Your task to perform on an android device: Go to battery settings Image 0: 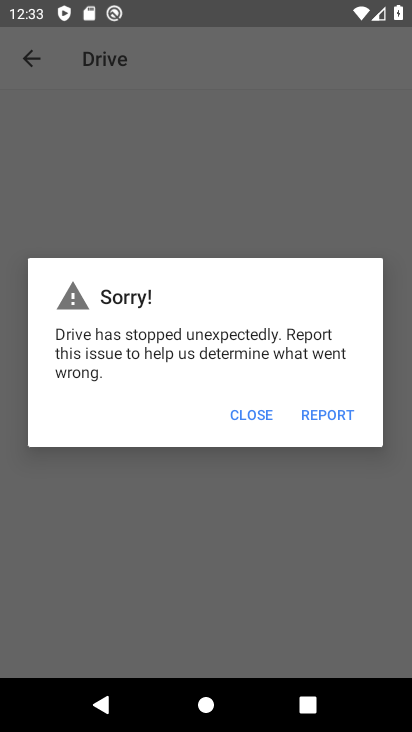
Step 0: press home button
Your task to perform on an android device: Go to battery settings Image 1: 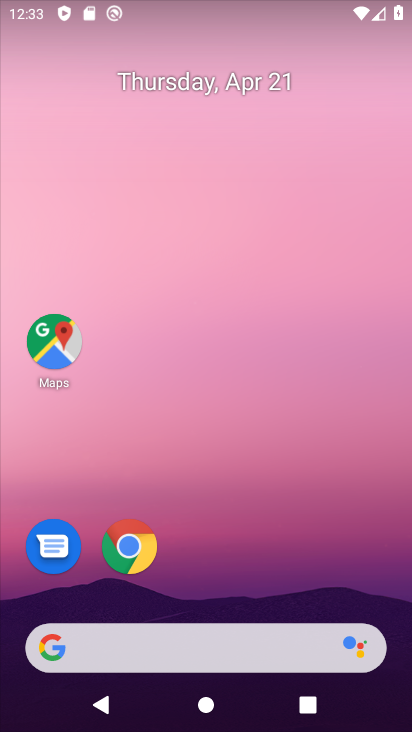
Step 1: drag from (284, 595) to (270, 227)
Your task to perform on an android device: Go to battery settings Image 2: 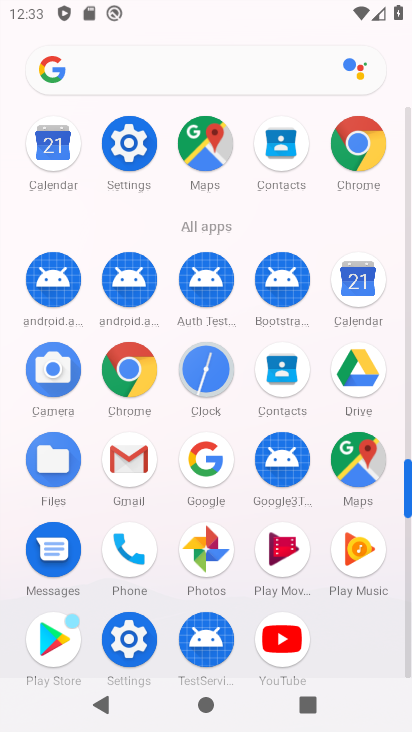
Step 2: click (136, 153)
Your task to perform on an android device: Go to battery settings Image 3: 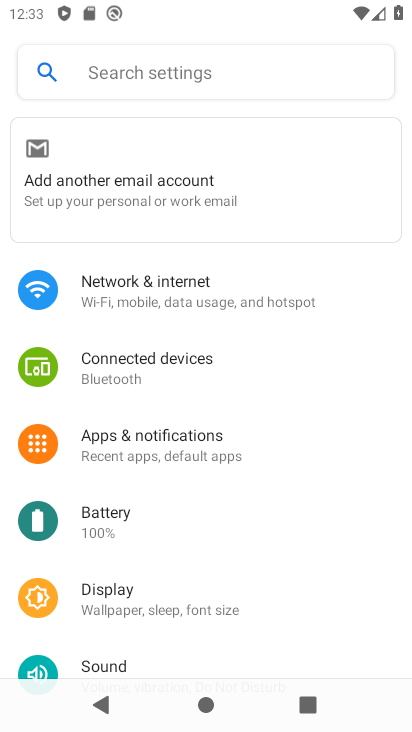
Step 3: click (144, 527)
Your task to perform on an android device: Go to battery settings Image 4: 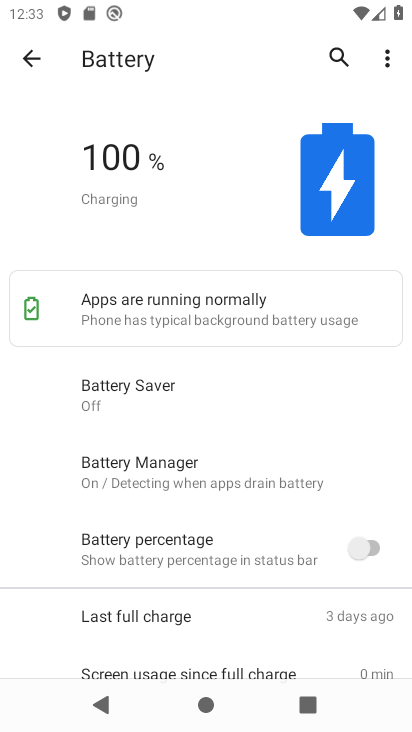
Step 4: task complete